Your task to perform on an android device: turn notification dots off Image 0: 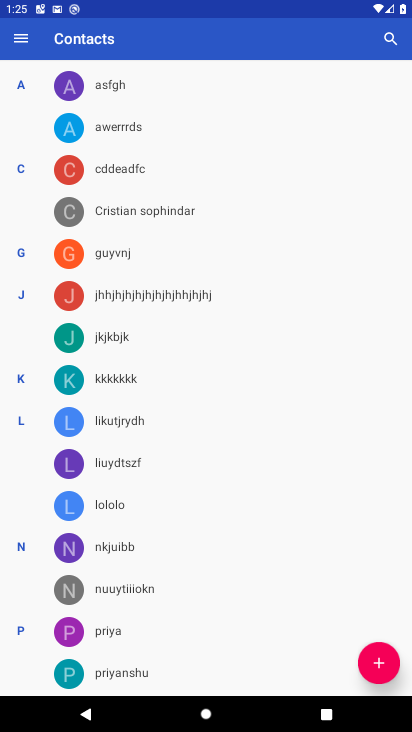
Step 0: press home button
Your task to perform on an android device: turn notification dots off Image 1: 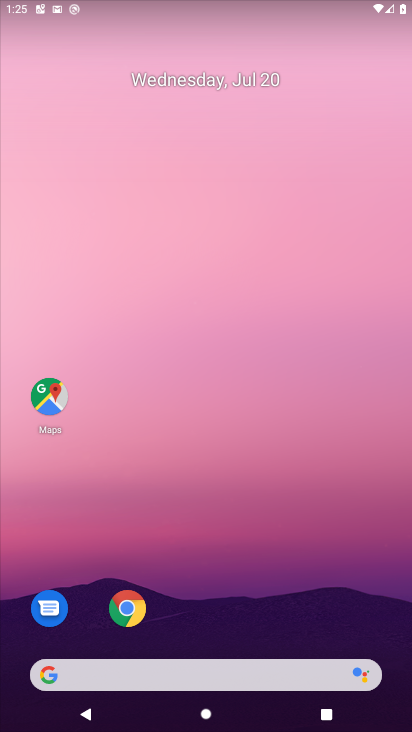
Step 1: drag from (213, 662) to (213, 252)
Your task to perform on an android device: turn notification dots off Image 2: 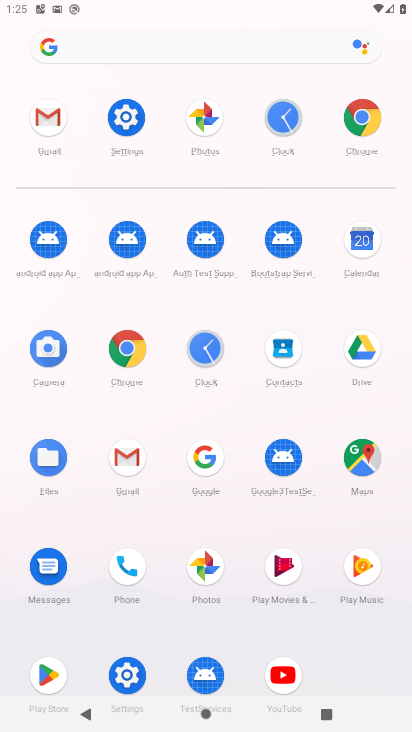
Step 2: click (124, 118)
Your task to perform on an android device: turn notification dots off Image 3: 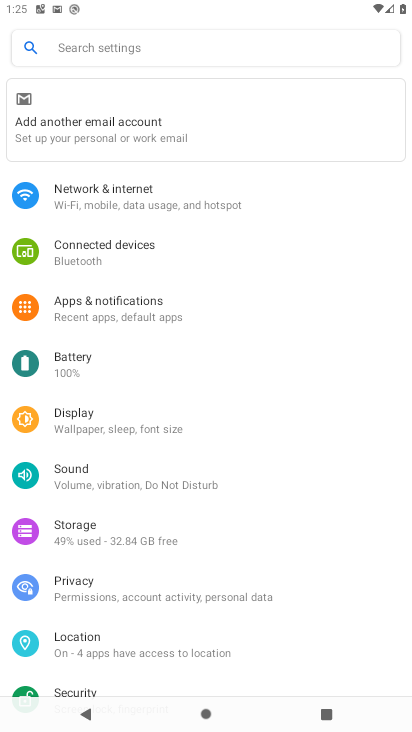
Step 3: click (155, 305)
Your task to perform on an android device: turn notification dots off Image 4: 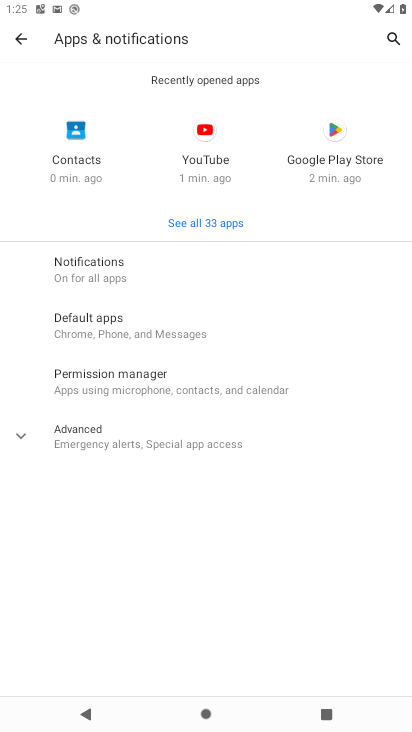
Step 4: click (77, 424)
Your task to perform on an android device: turn notification dots off Image 5: 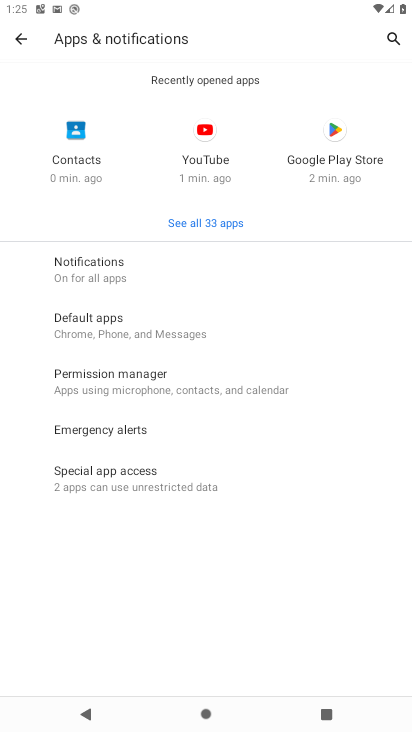
Step 5: click (56, 272)
Your task to perform on an android device: turn notification dots off Image 6: 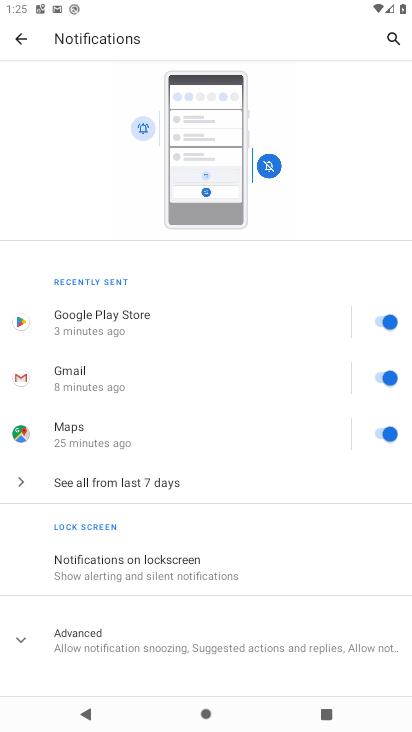
Step 6: click (113, 641)
Your task to perform on an android device: turn notification dots off Image 7: 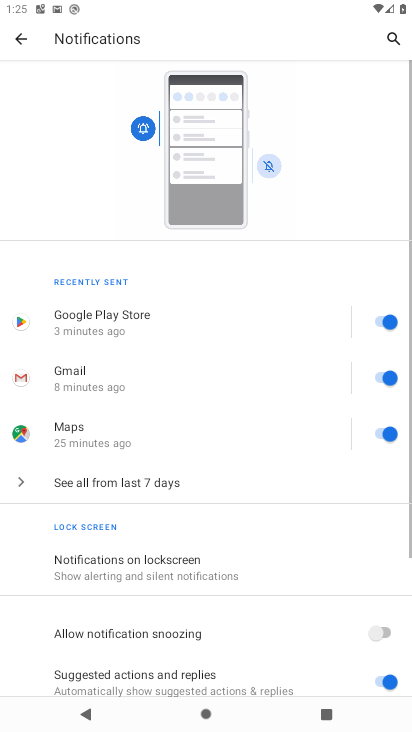
Step 7: click (218, 381)
Your task to perform on an android device: turn notification dots off Image 8: 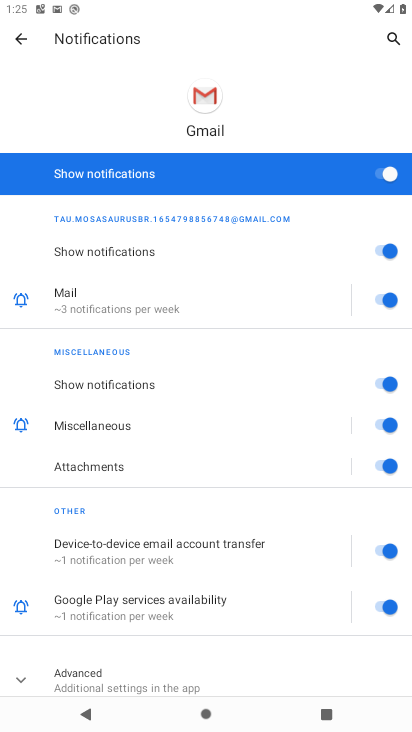
Step 8: click (15, 39)
Your task to perform on an android device: turn notification dots off Image 9: 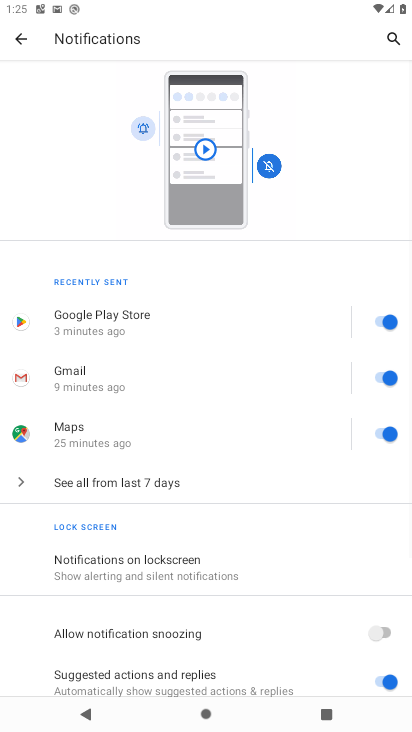
Step 9: task complete